Your task to perform on an android device: delete a single message in the gmail app Image 0: 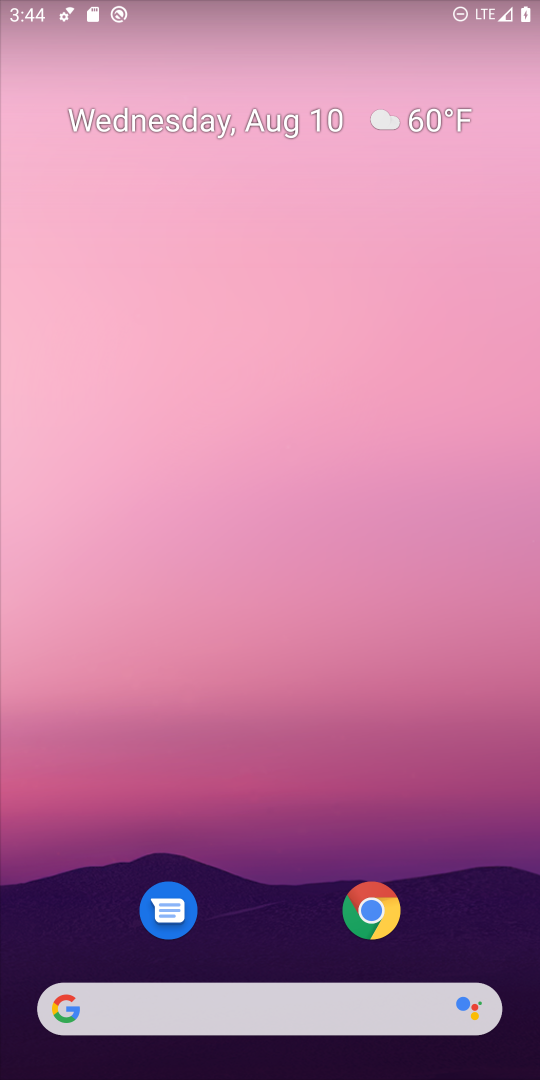
Step 0: drag from (255, 925) to (254, 153)
Your task to perform on an android device: delete a single message in the gmail app Image 1: 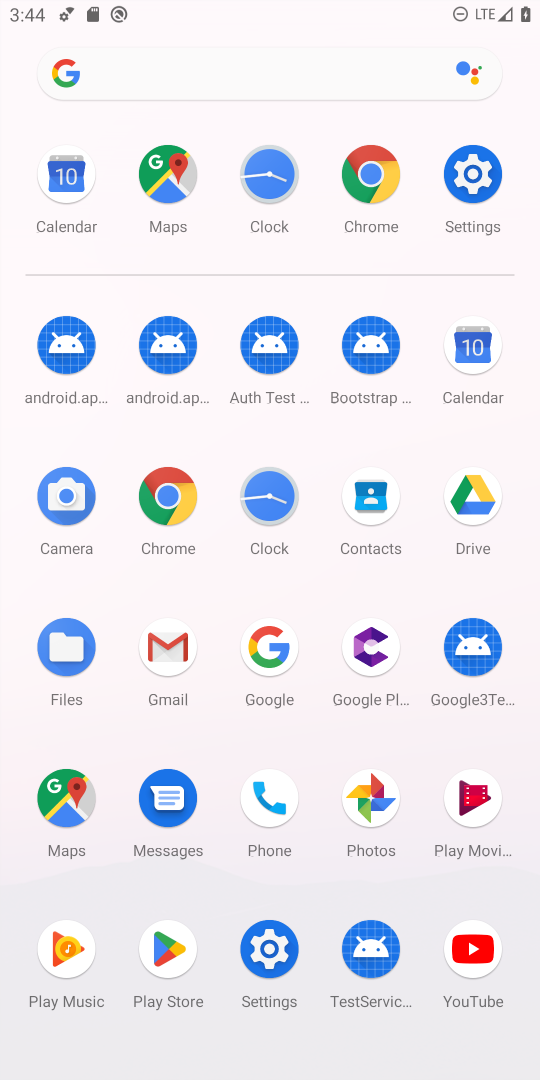
Step 1: click (175, 678)
Your task to perform on an android device: delete a single message in the gmail app Image 2: 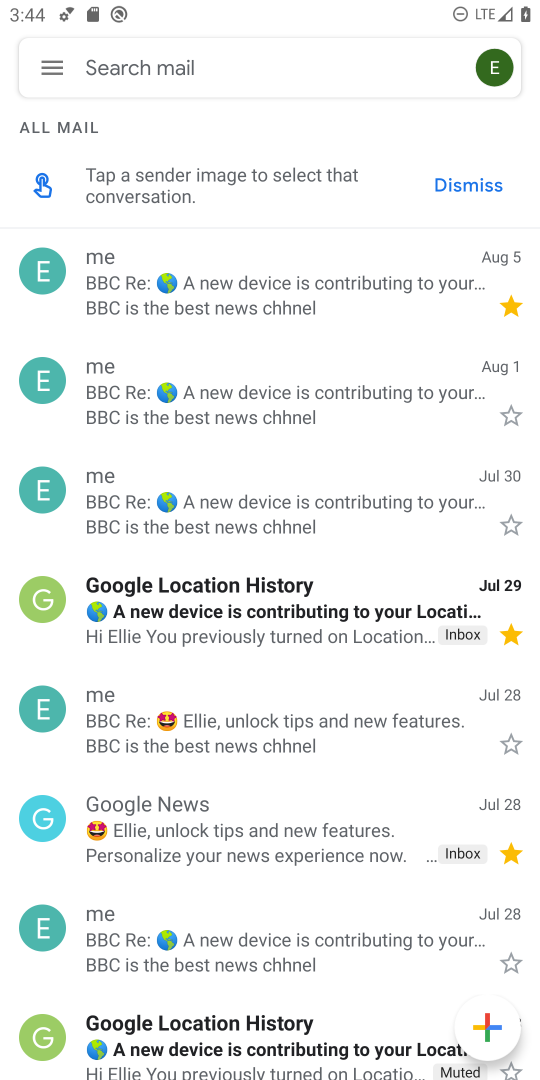
Step 2: click (379, 302)
Your task to perform on an android device: delete a single message in the gmail app Image 3: 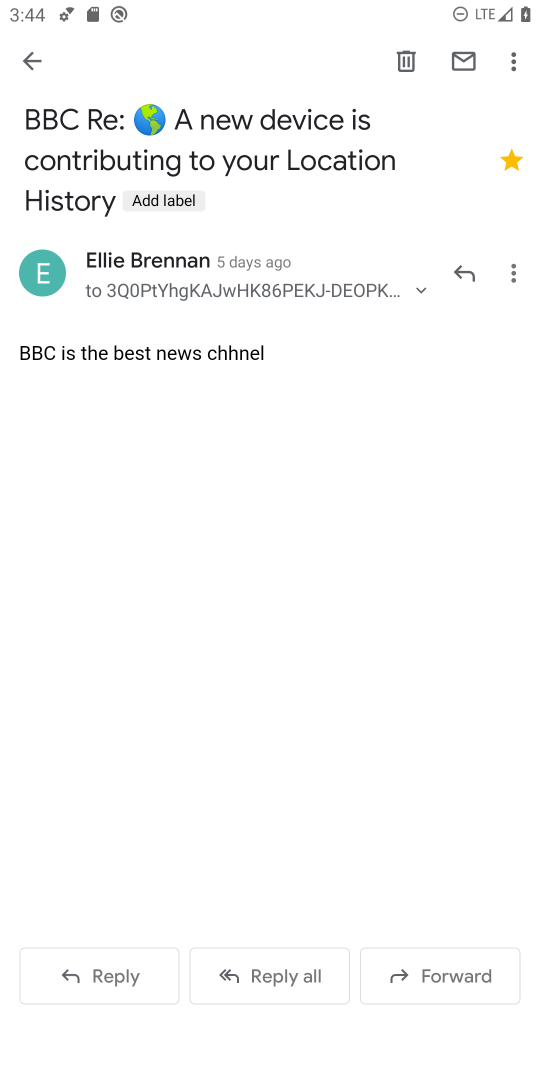
Step 3: click (394, 60)
Your task to perform on an android device: delete a single message in the gmail app Image 4: 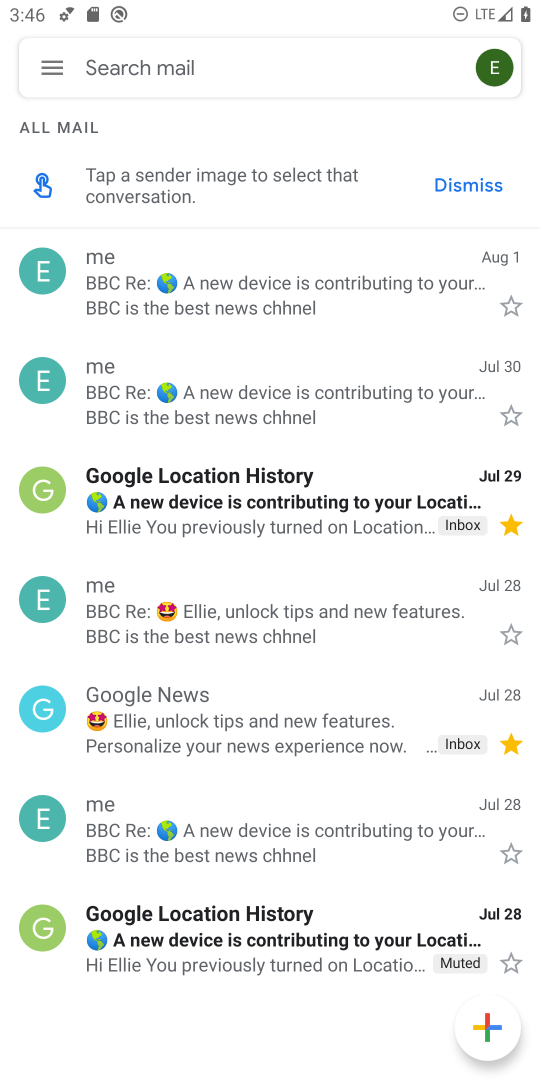
Step 4: task complete